Your task to perform on an android device: turn on improve location accuracy Image 0: 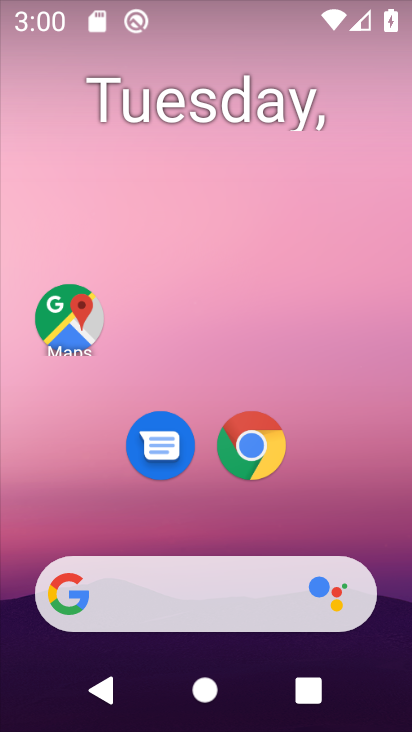
Step 0: drag from (365, 544) to (370, 42)
Your task to perform on an android device: turn on improve location accuracy Image 1: 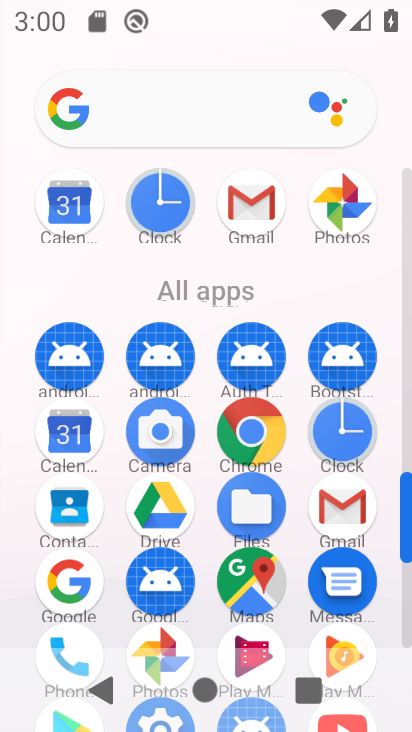
Step 1: drag from (405, 462) to (408, 423)
Your task to perform on an android device: turn on improve location accuracy Image 2: 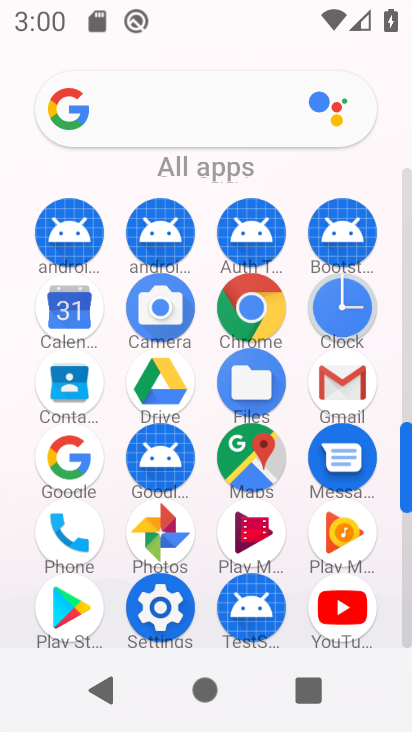
Step 2: click (161, 607)
Your task to perform on an android device: turn on improve location accuracy Image 3: 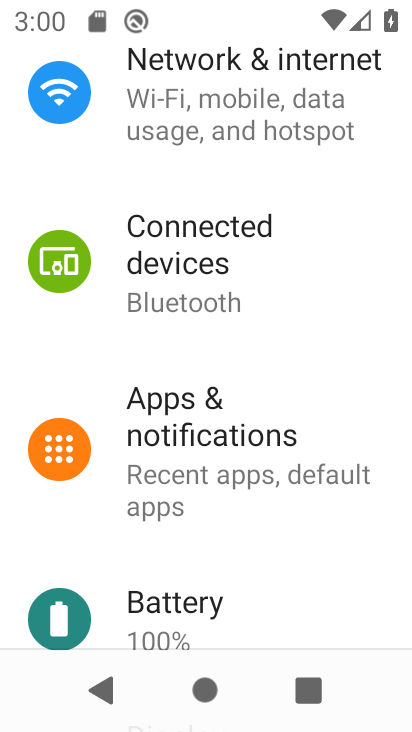
Step 3: drag from (319, 533) to (316, 164)
Your task to perform on an android device: turn on improve location accuracy Image 4: 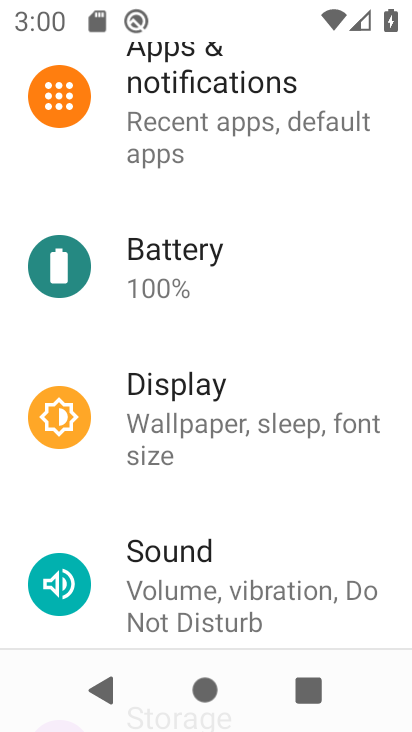
Step 4: drag from (306, 525) to (298, 206)
Your task to perform on an android device: turn on improve location accuracy Image 5: 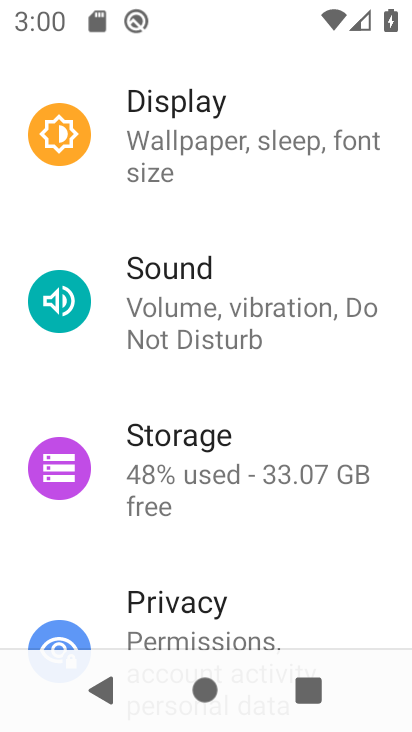
Step 5: drag from (310, 518) to (293, 222)
Your task to perform on an android device: turn on improve location accuracy Image 6: 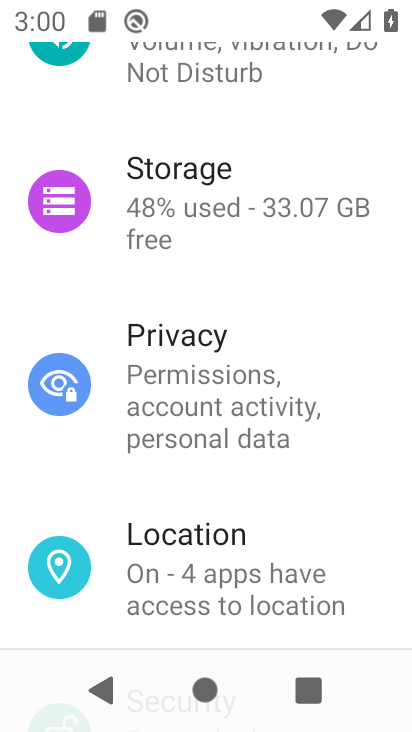
Step 6: click (202, 560)
Your task to perform on an android device: turn on improve location accuracy Image 7: 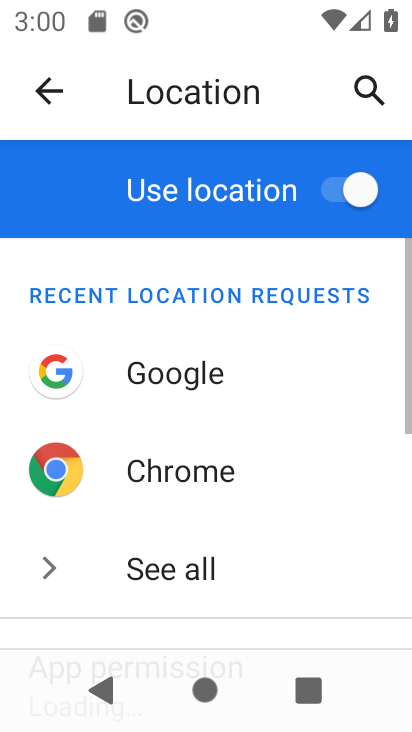
Step 7: drag from (264, 577) to (269, 150)
Your task to perform on an android device: turn on improve location accuracy Image 8: 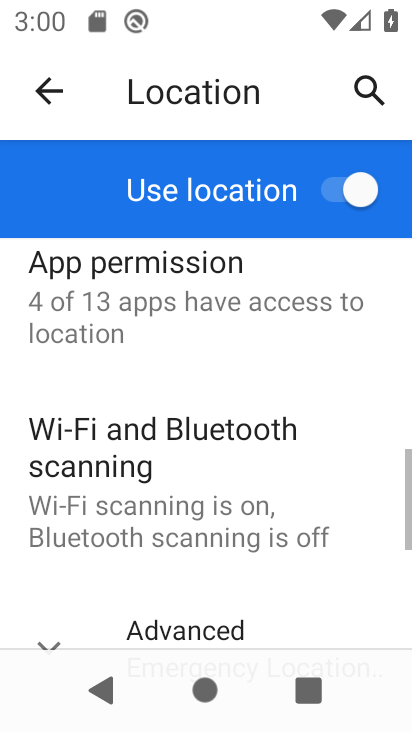
Step 8: click (51, 624)
Your task to perform on an android device: turn on improve location accuracy Image 9: 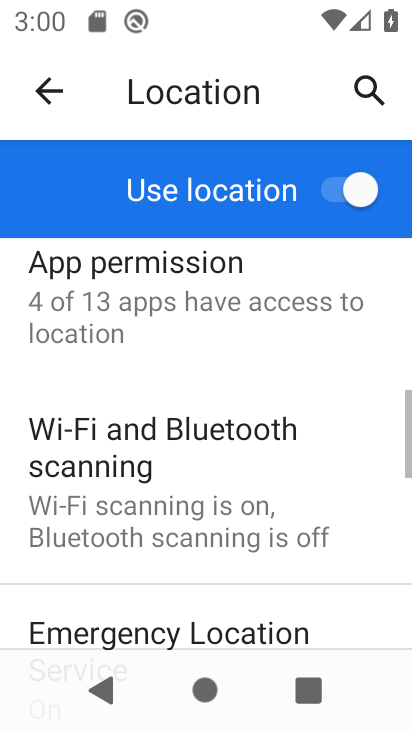
Step 9: drag from (266, 581) to (242, 179)
Your task to perform on an android device: turn on improve location accuracy Image 10: 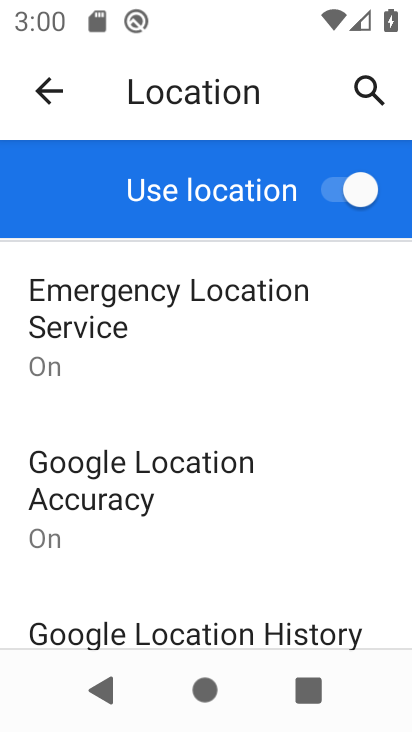
Step 10: click (108, 481)
Your task to perform on an android device: turn on improve location accuracy Image 11: 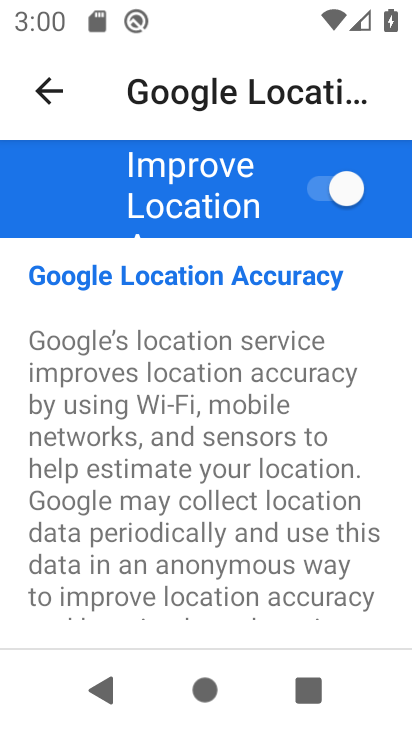
Step 11: task complete